Your task to perform on an android device: What's the weather today? Image 0: 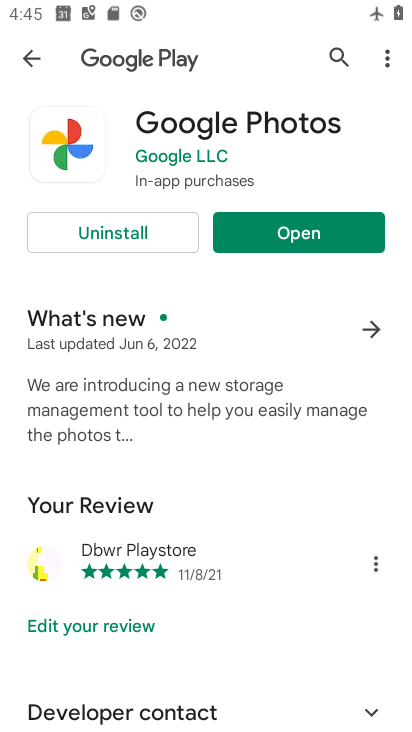
Step 0: press home button
Your task to perform on an android device: What's the weather today? Image 1: 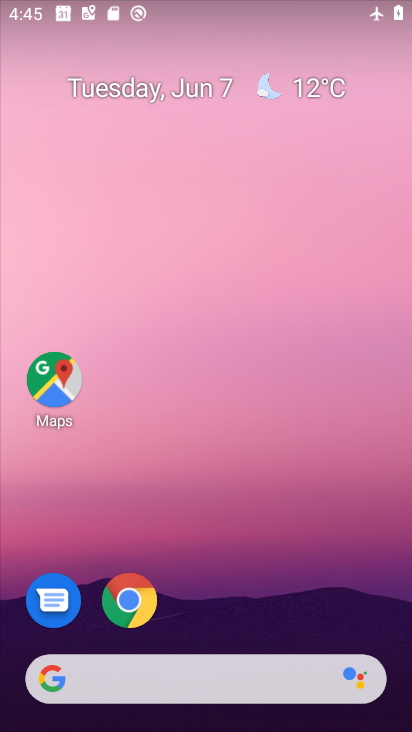
Step 1: click (332, 95)
Your task to perform on an android device: What's the weather today? Image 2: 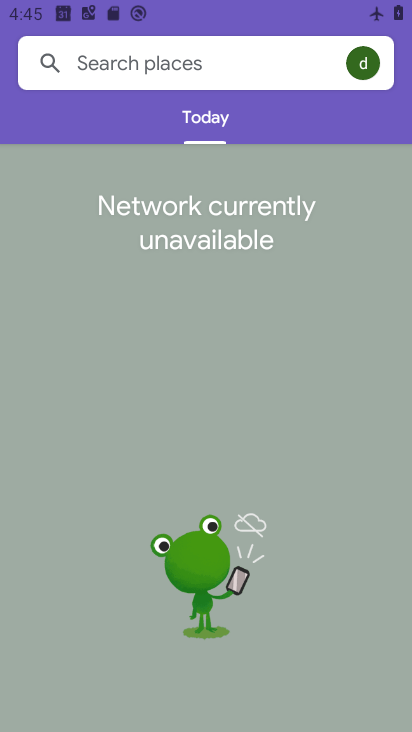
Step 2: task complete